Your task to perform on an android device: Open Maps and search for coffee Image 0: 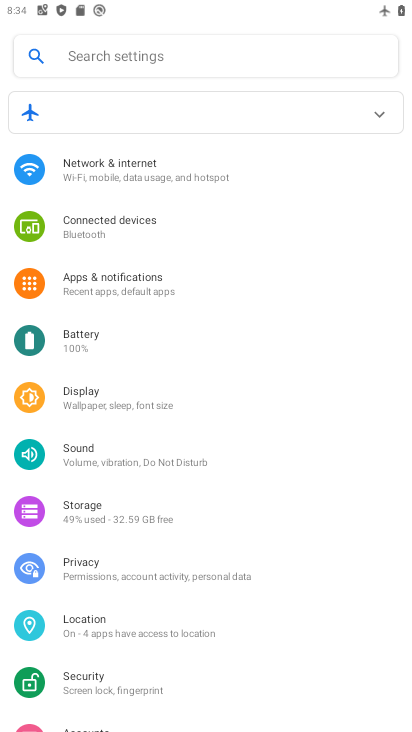
Step 0: press home button
Your task to perform on an android device: Open Maps and search for coffee Image 1: 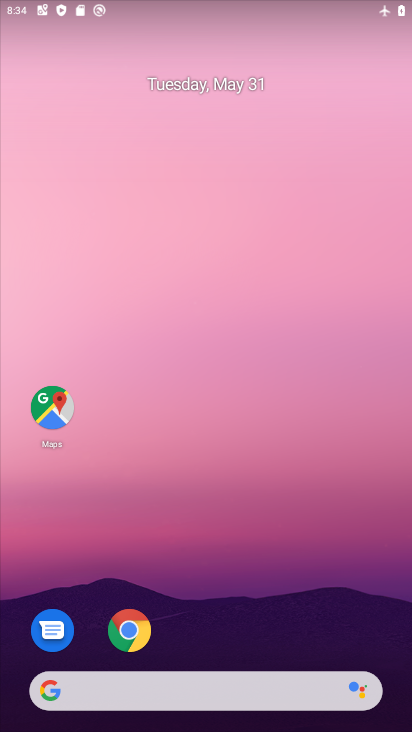
Step 1: click (58, 400)
Your task to perform on an android device: Open Maps and search for coffee Image 2: 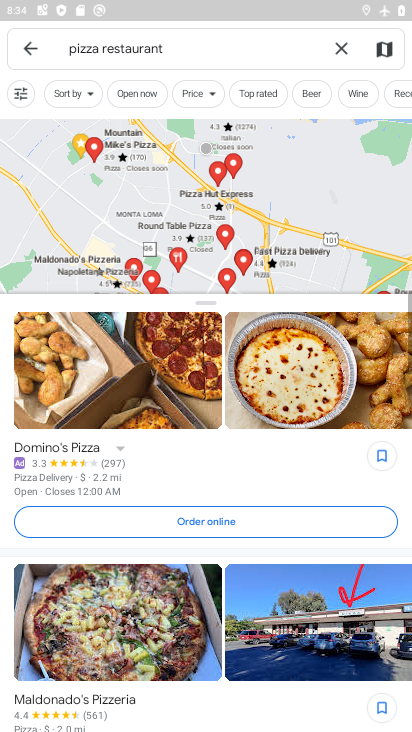
Step 2: click (343, 50)
Your task to perform on an android device: Open Maps and search for coffee Image 3: 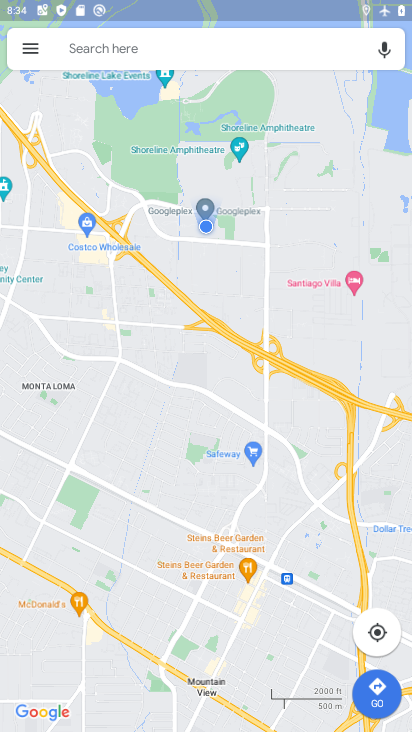
Step 3: click (219, 47)
Your task to perform on an android device: Open Maps and search for coffee Image 4: 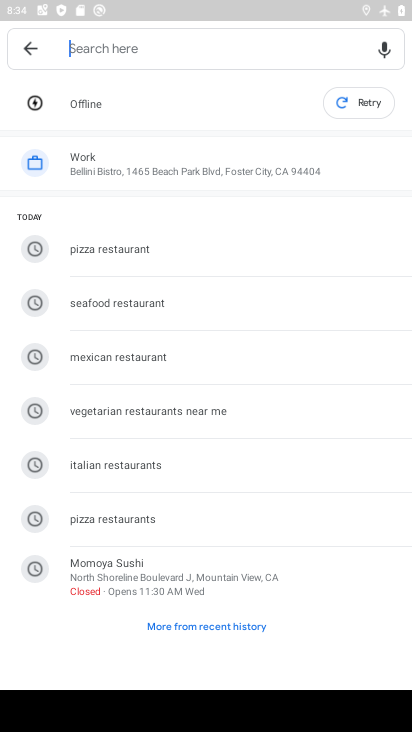
Step 4: click (213, 48)
Your task to perform on an android device: Open Maps and search for coffee Image 5: 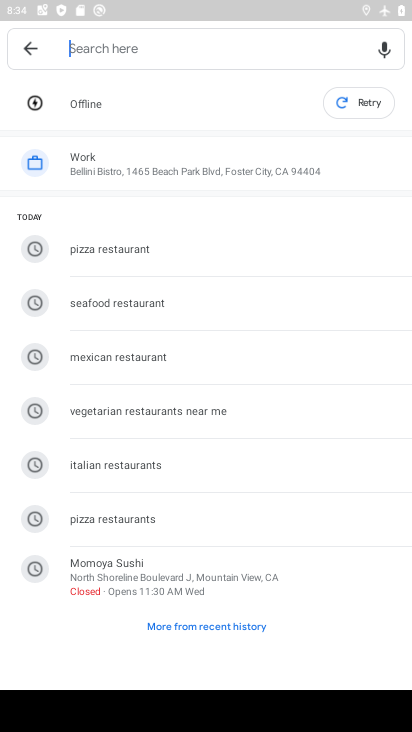
Step 5: type " coffee"
Your task to perform on an android device: Open Maps and search for coffee Image 6: 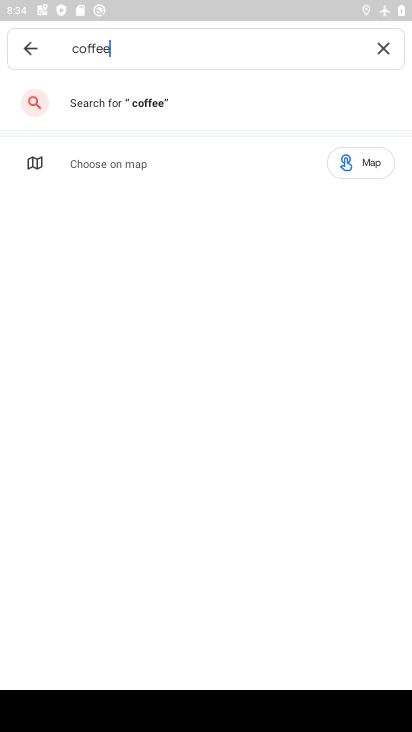
Step 6: click (161, 98)
Your task to perform on an android device: Open Maps and search for coffee Image 7: 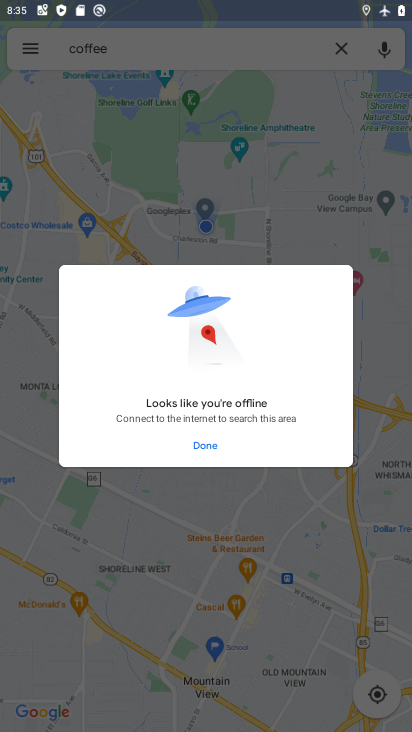
Step 7: click (197, 448)
Your task to perform on an android device: Open Maps and search for coffee Image 8: 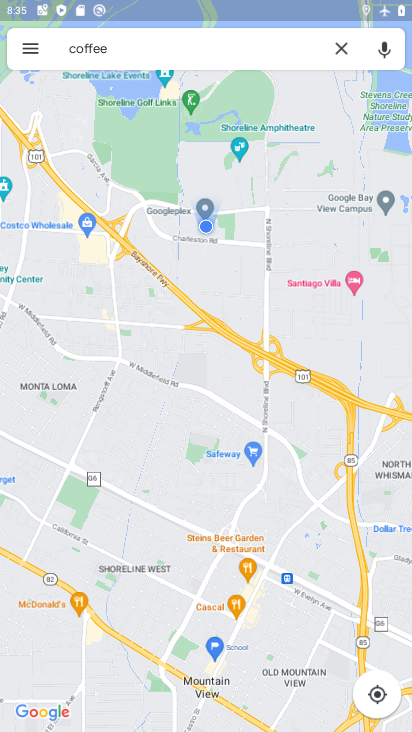
Step 8: task complete